Your task to perform on an android device: Open the map Image 0: 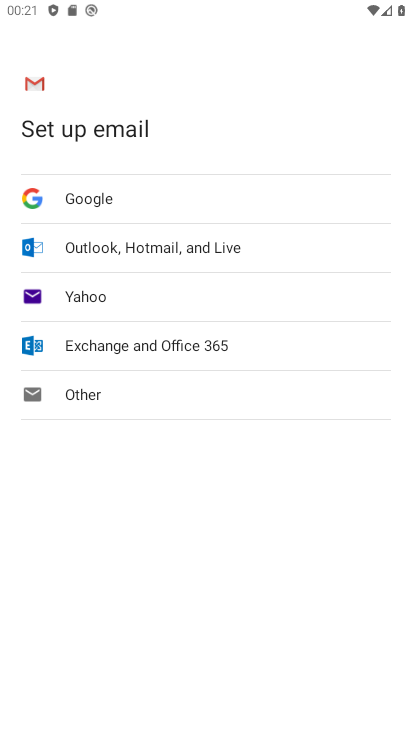
Step 0: press home button
Your task to perform on an android device: Open the map Image 1: 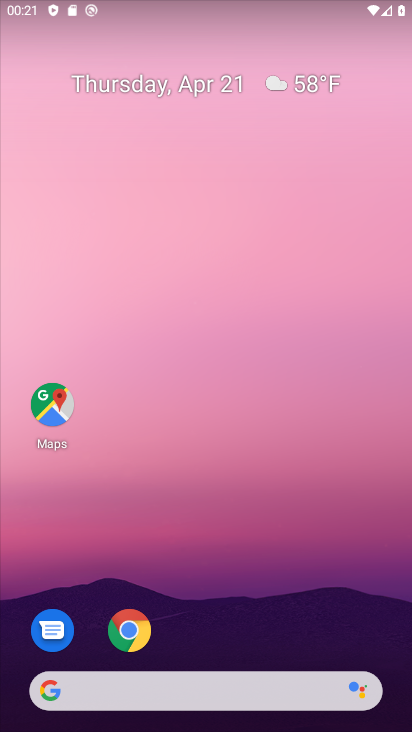
Step 1: drag from (184, 693) to (299, 142)
Your task to perform on an android device: Open the map Image 2: 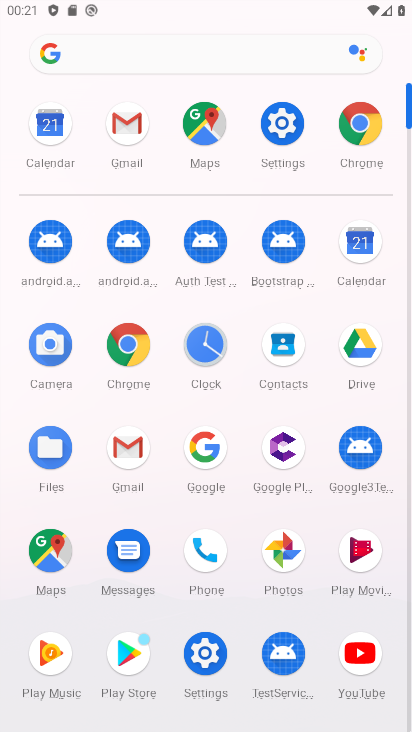
Step 2: click (199, 132)
Your task to perform on an android device: Open the map Image 3: 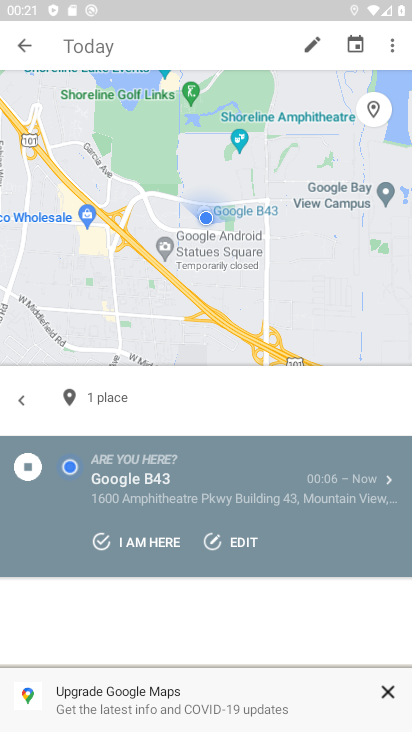
Step 3: task complete